Your task to perform on an android device: Open the map Image 0: 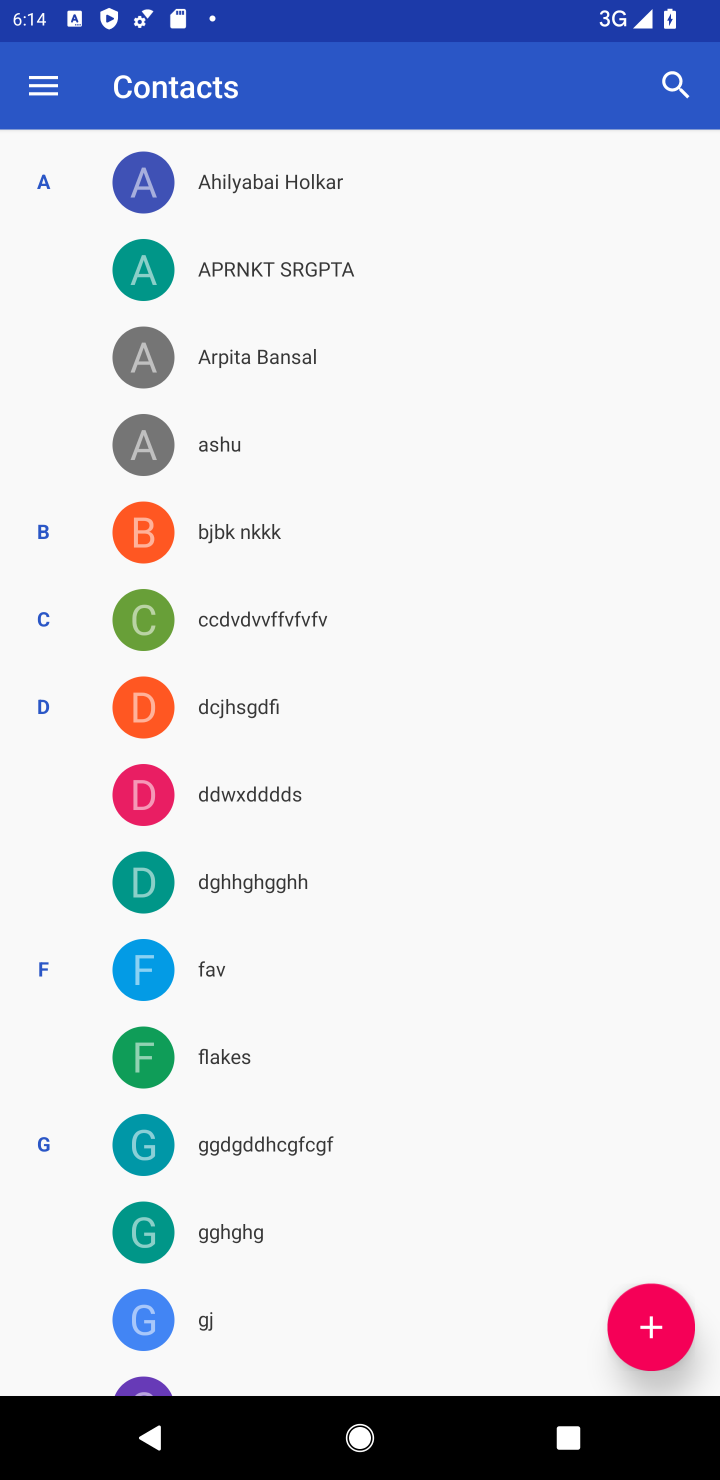
Step 0: press home button
Your task to perform on an android device: Open the map Image 1: 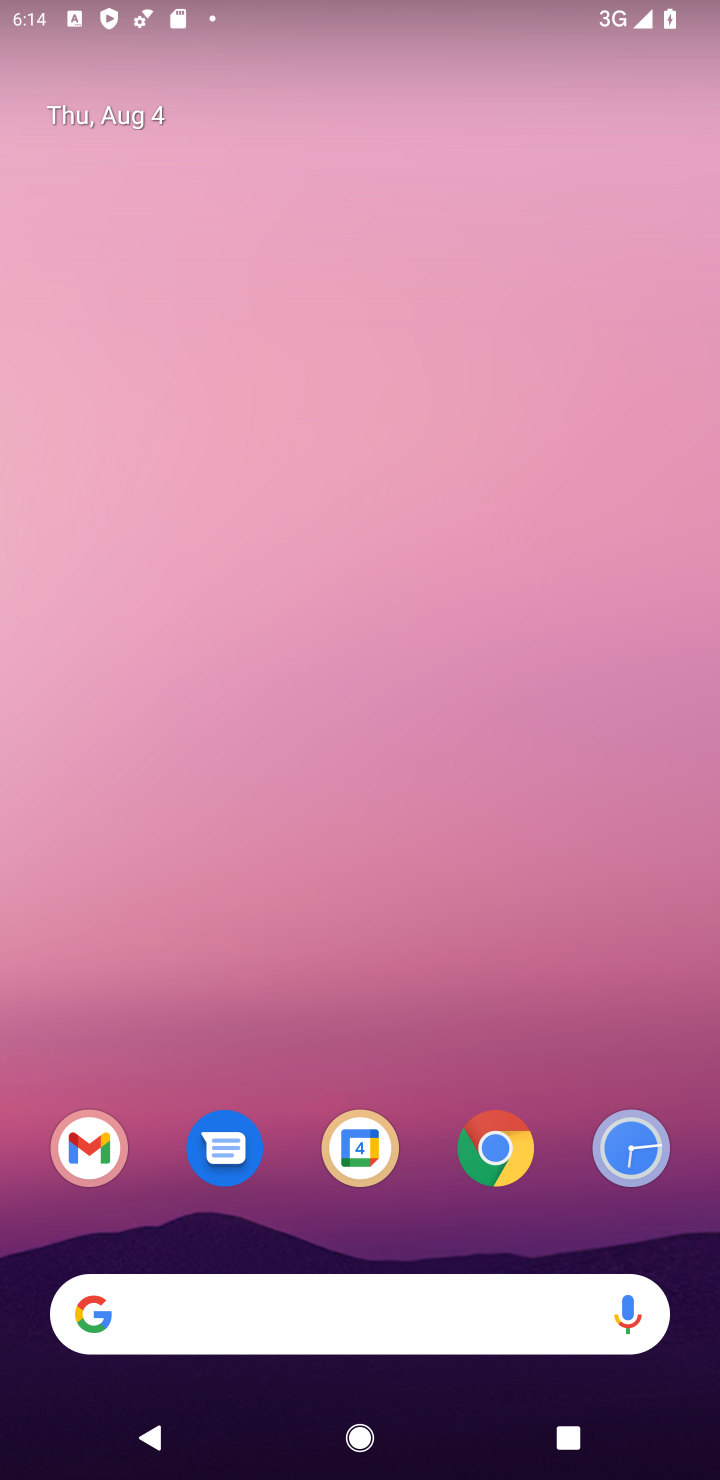
Step 1: drag from (555, 1129) to (461, 193)
Your task to perform on an android device: Open the map Image 2: 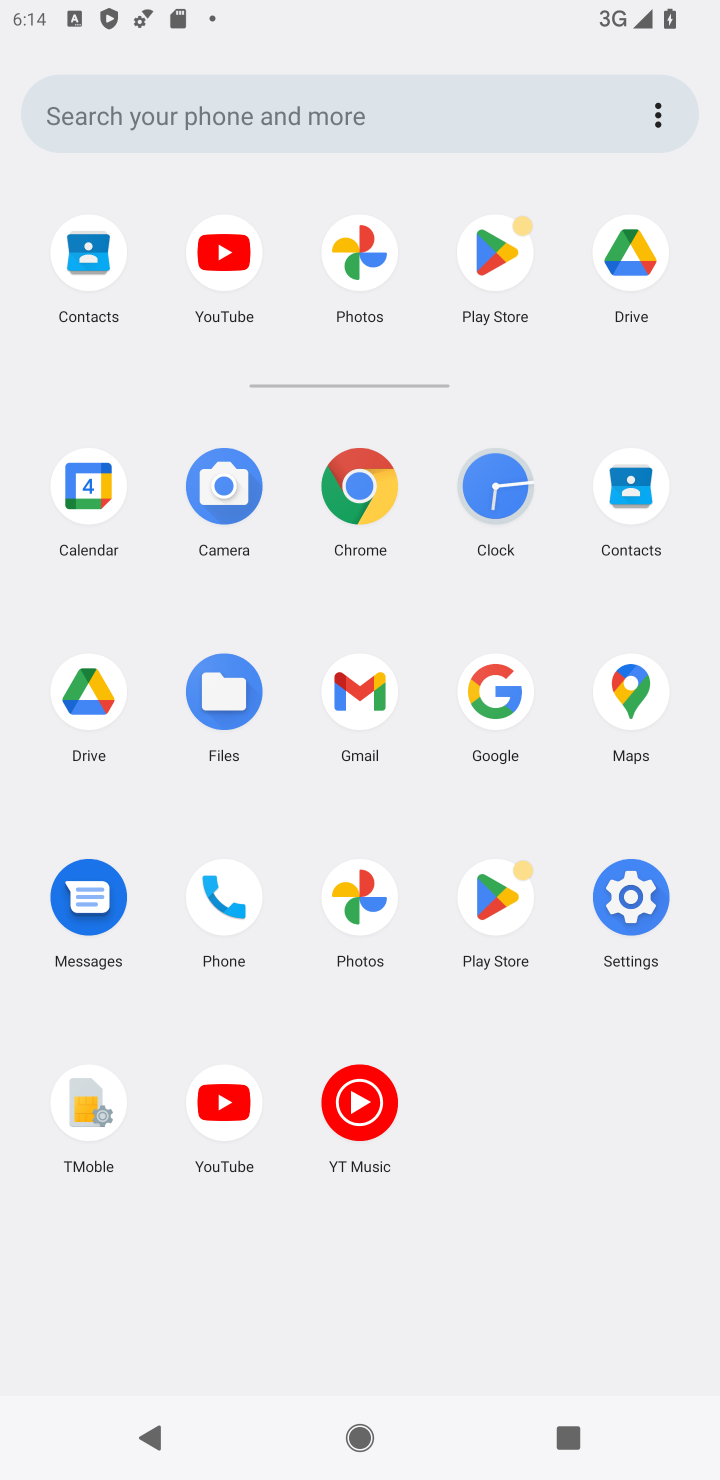
Step 2: click (629, 688)
Your task to perform on an android device: Open the map Image 3: 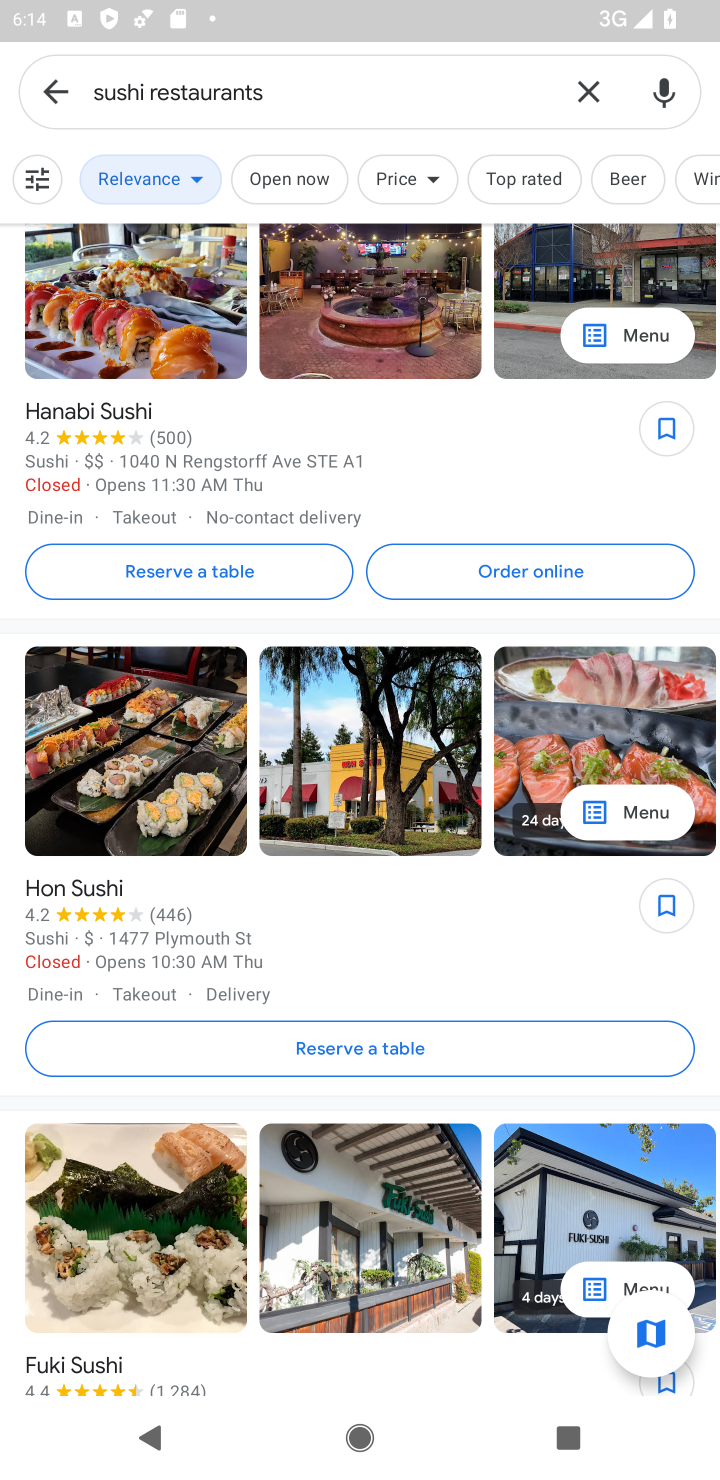
Step 3: click (587, 84)
Your task to perform on an android device: Open the map Image 4: 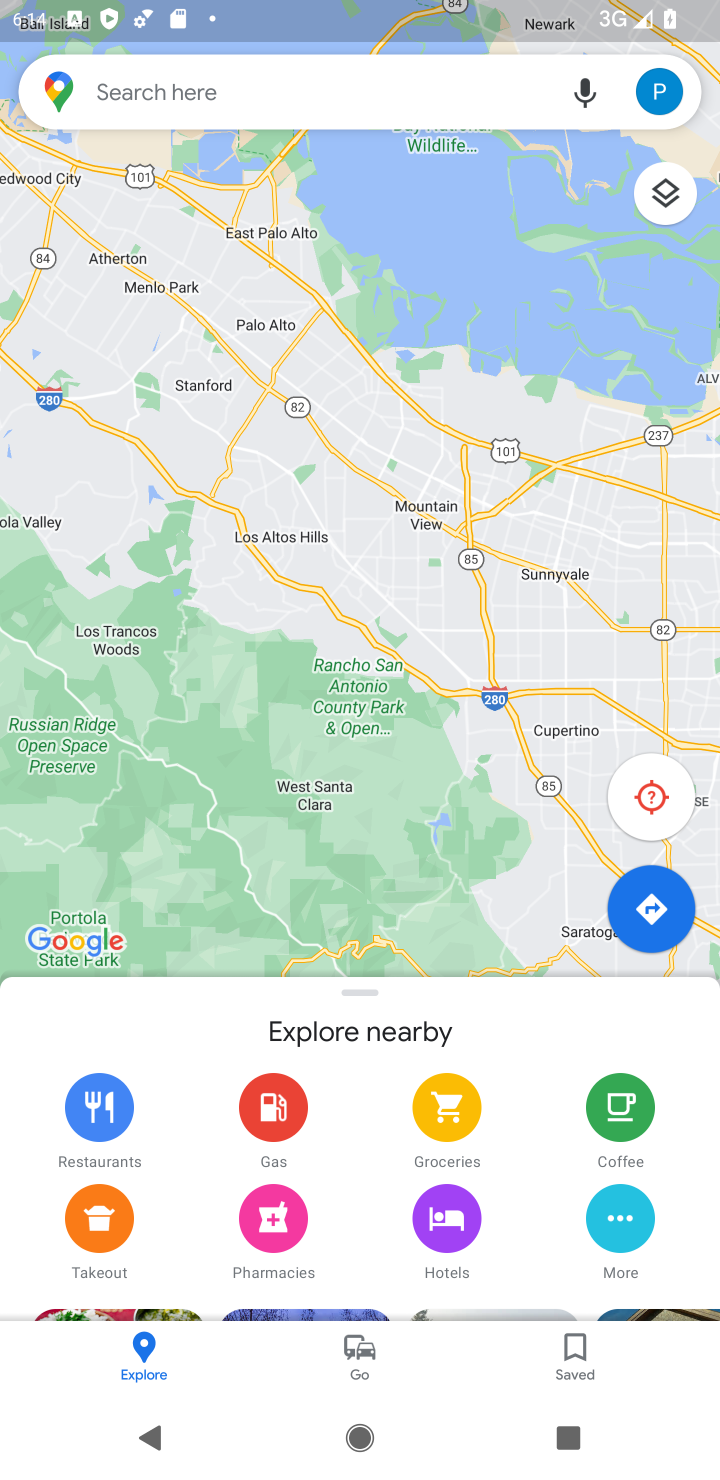
Step 4: task complete